Your task to perform on an android device: turn off location Image 0: 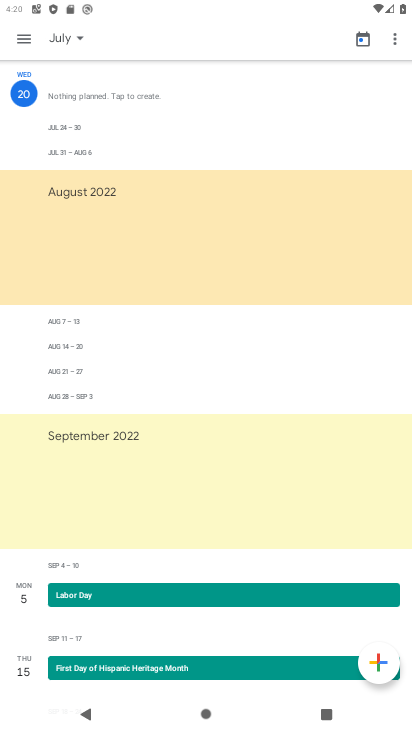
Step 0: press home button
Your task to perform on an android device: turn off location Image 1: 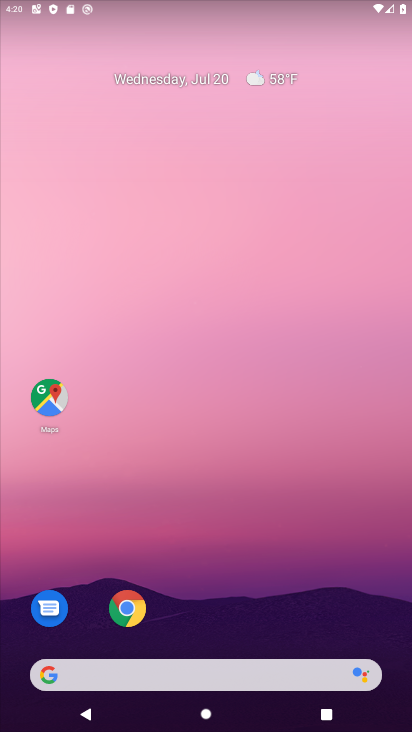
Step 1: drag from (238, 629) to (229, 7)
Your task to perform on an android device: turn off location Image 2: 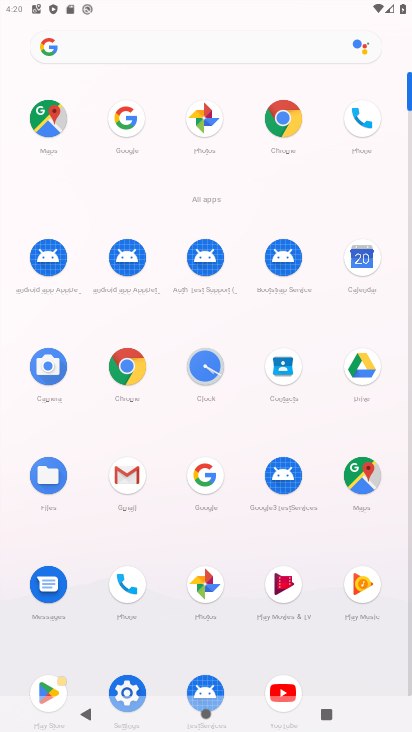
Step 2: click (127, 681)
Your task to perform on an android device: turn off location Image 3: 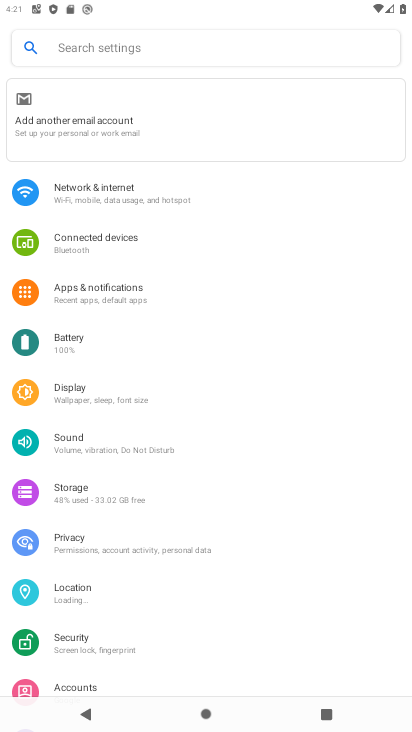
Step 3: click (64, 597)
Your task to perform on an android device: turn off location Image 4: 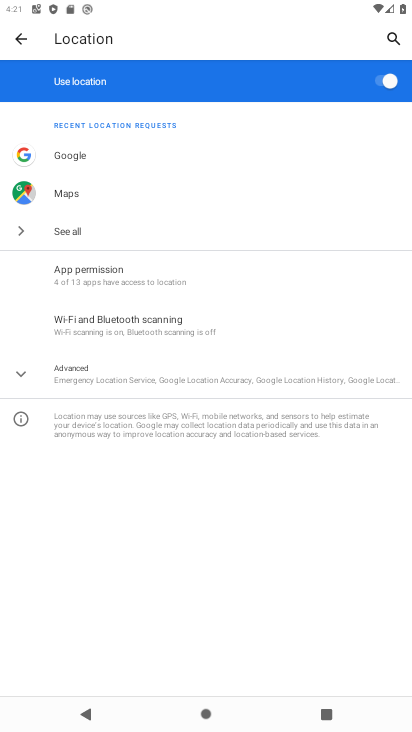
Step 4: click (376, 83)
Your task to perform on an android device: turn off location Image 5: 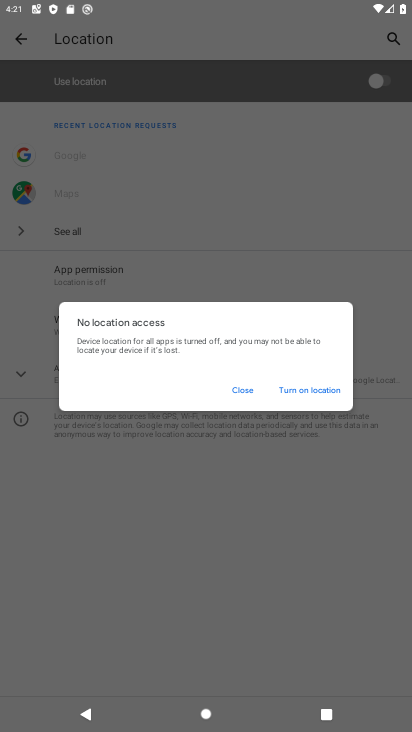
Step 5: task complete